Your task to perform on an android device: Open location settings Image 0: 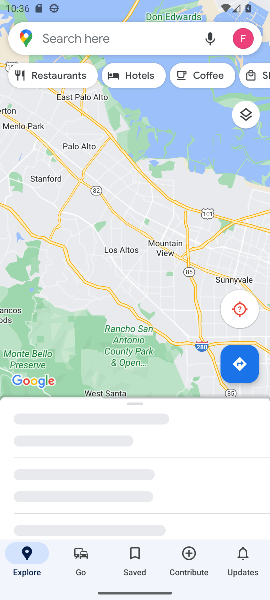
Step 0: press home button
Your task to perform on an android device: Open location settings Image 1: 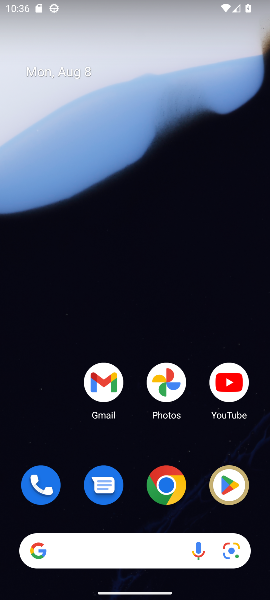
Step 1: drag from (142, 504) to (172, 59)
Your task to perform on an android device: Open location settings Image 2: 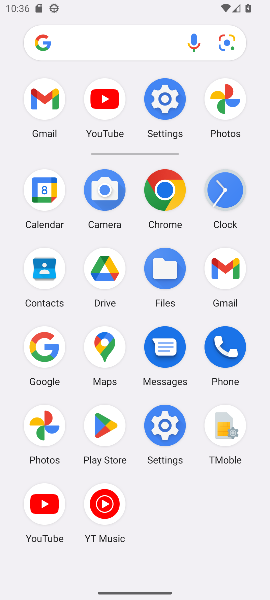
Step 2: click (165, 426)
Your task to perform on an android device: Open location settings Image 3: 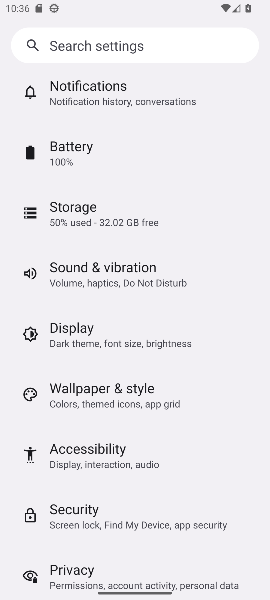
Step 3: drag from (119, 443) to (149, 182)
Your task to perform on an android device: Open location settings Image 4: 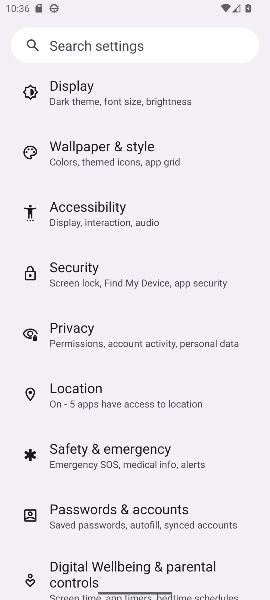
Step 4: click (74, 386)
Your task to perform on an android device: Open location settings Image 5: 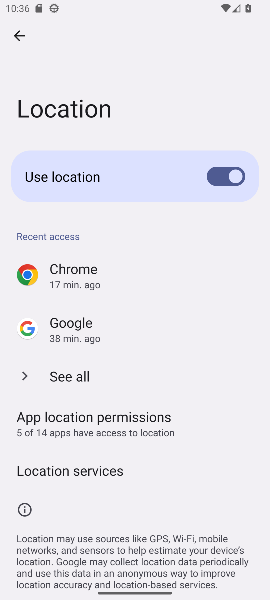
Step 5: task complete